Your task to perform on an android device: set default search engine in the chrome app Image 0: 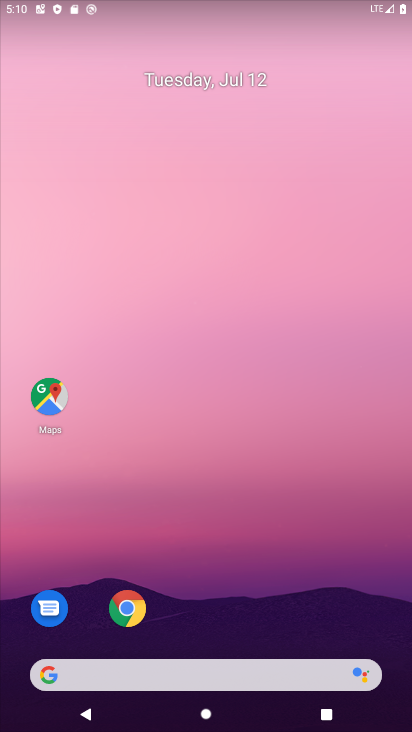
Step 0: click (130, 597)
Your task to perform on an android device: set default search engine in the chrome app Image 1: 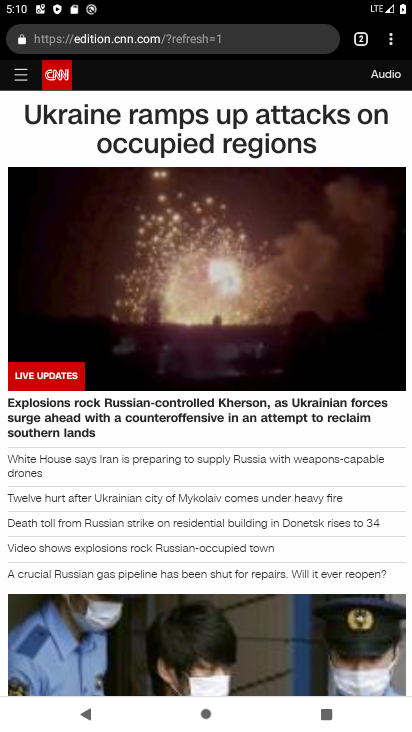
Step 1: click (401, 43)
Your task to perform on an android device: set default search engine in the chrome app Image 2: 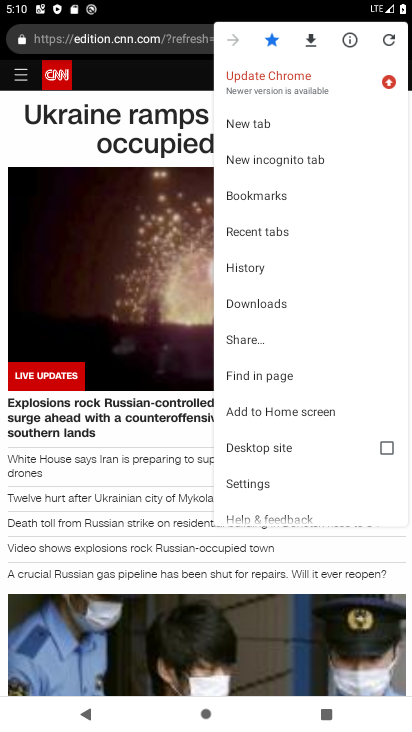
Step 2: click (235, 484)
Your task to perform on an android device: set default search engine in the chrome app Image 3: 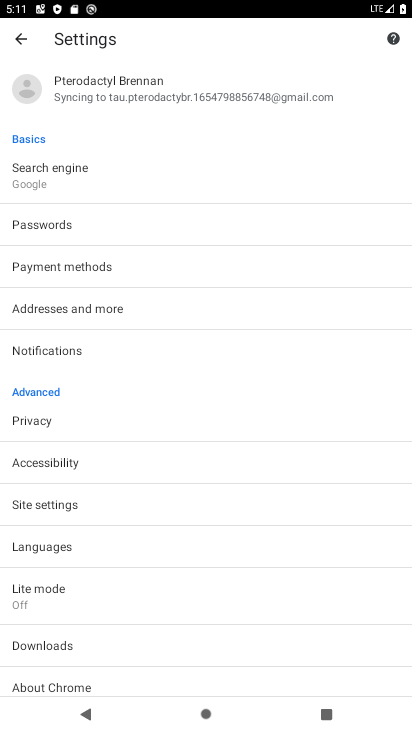
Step 3: click (111, 169)
Your task to perform on an android device: set default search engine in the chrome app Image 4: 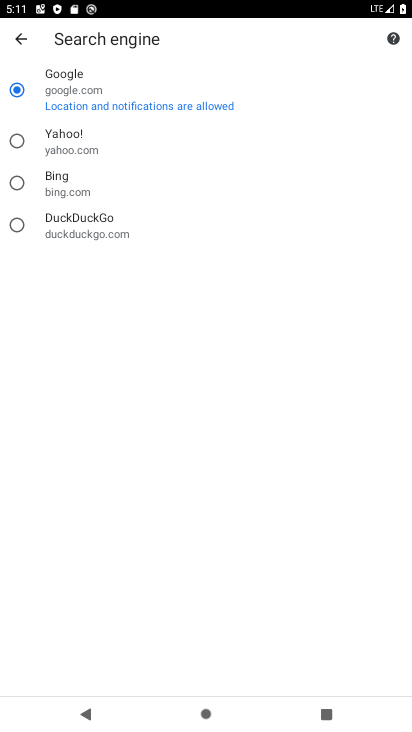
Step 4: click (72, 227)
Your task to perform on an android device: set default search engine in the chrome app Image 5: 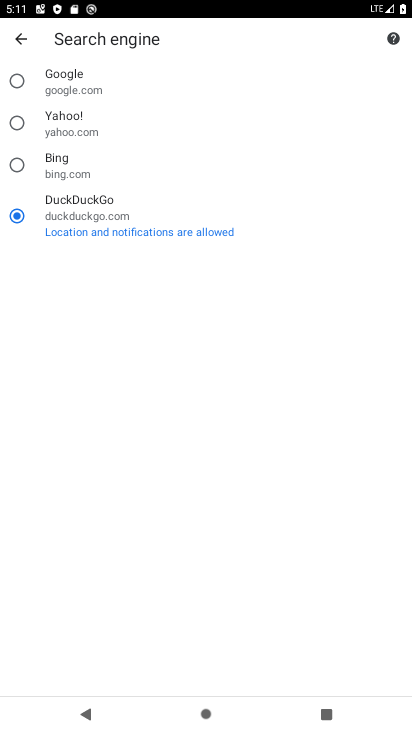
Step 5: task complete